Your task to perform on an android device: Open Chrome and go to the settings page Image 0: 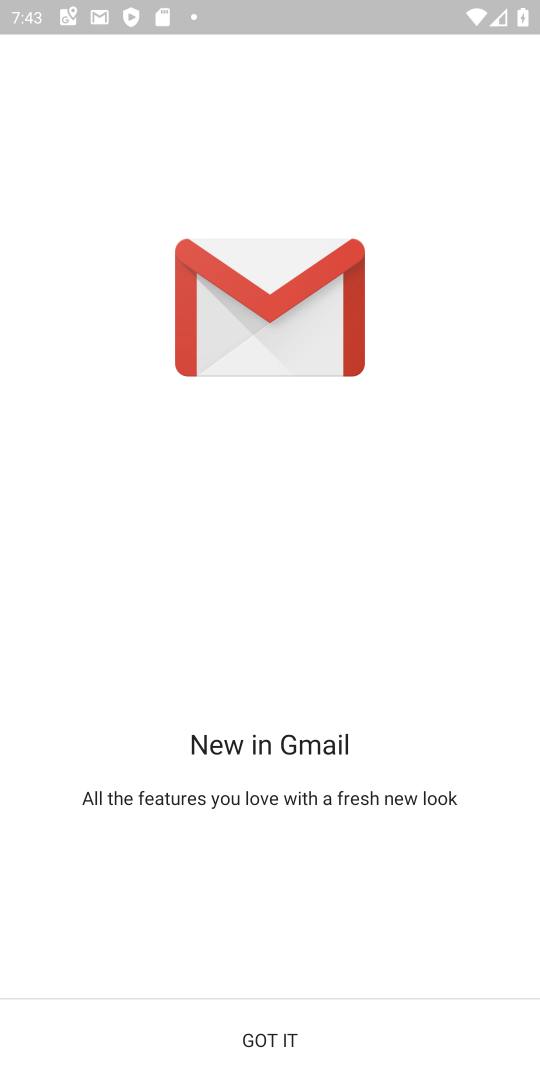
Step 0: press home button
Your task to perform on an android device: Open Chrome and go to the settings page Image 1: 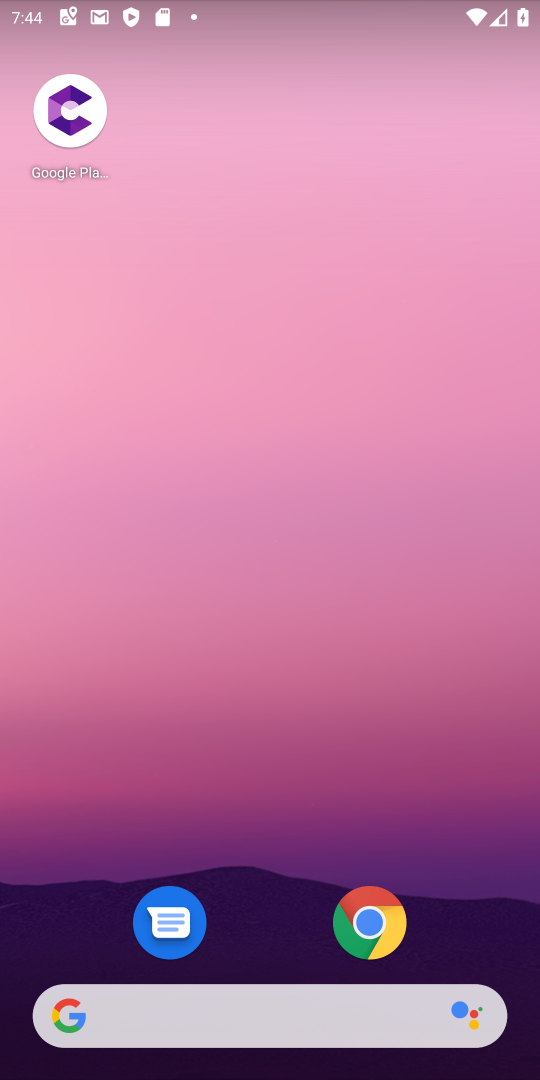
Step 1: click (382, 934)
Your task to perform on an android device: Open Chrome and go to the settings page Image 2: 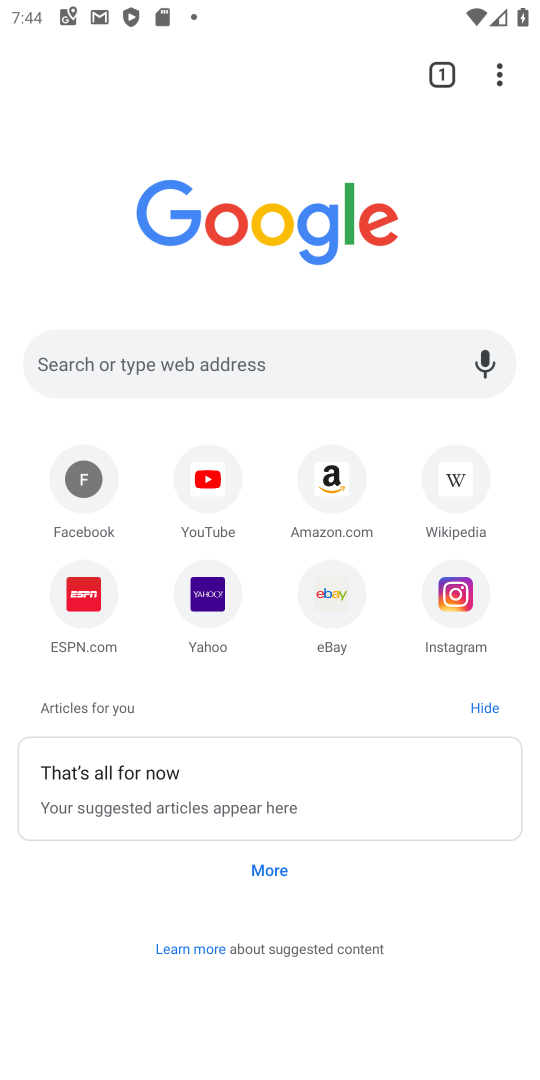
Step 2: click (504, 70)
Your task to perform on an android device: Open Chrome and go to the settings page Image 3: 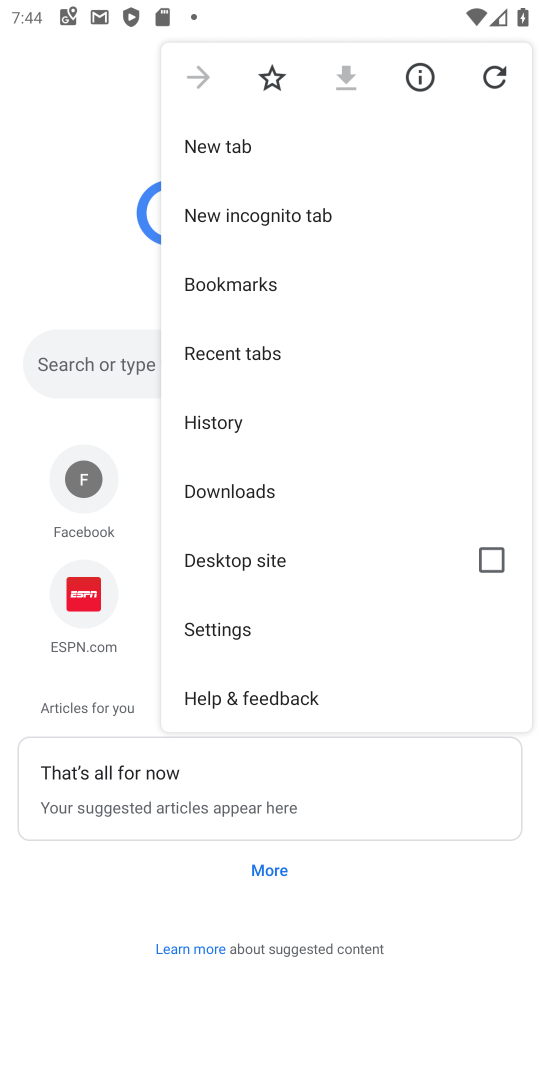
Step 3: click (271, 620)
Your task to perform on an android device: Open Chrome and go to the settings page Image 4: 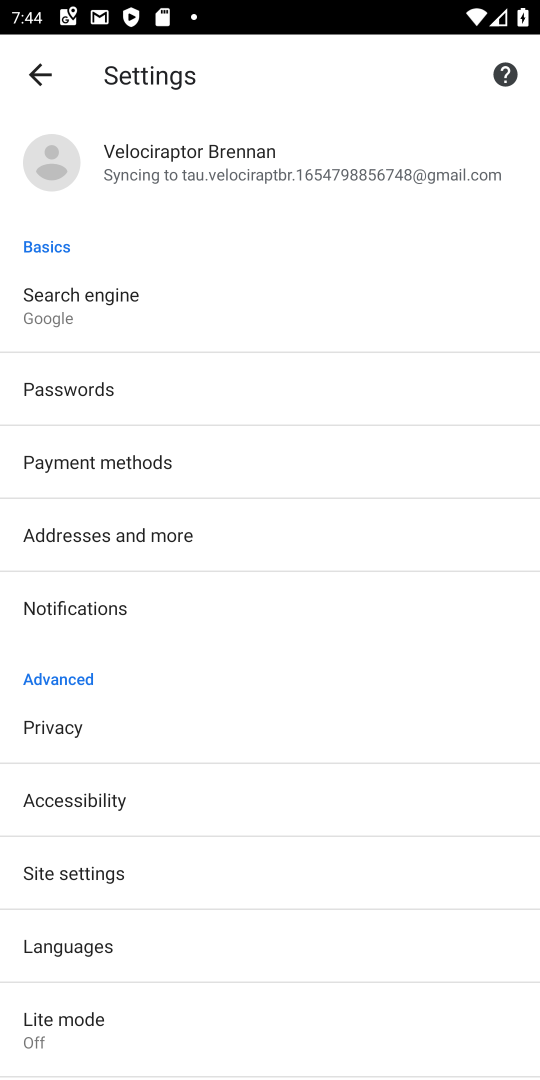
Step 4: task complete